Your task to perform on an android device: Search for "jbl charge 4" on target.com, select the first entry, and add it to the cart. Image 0: 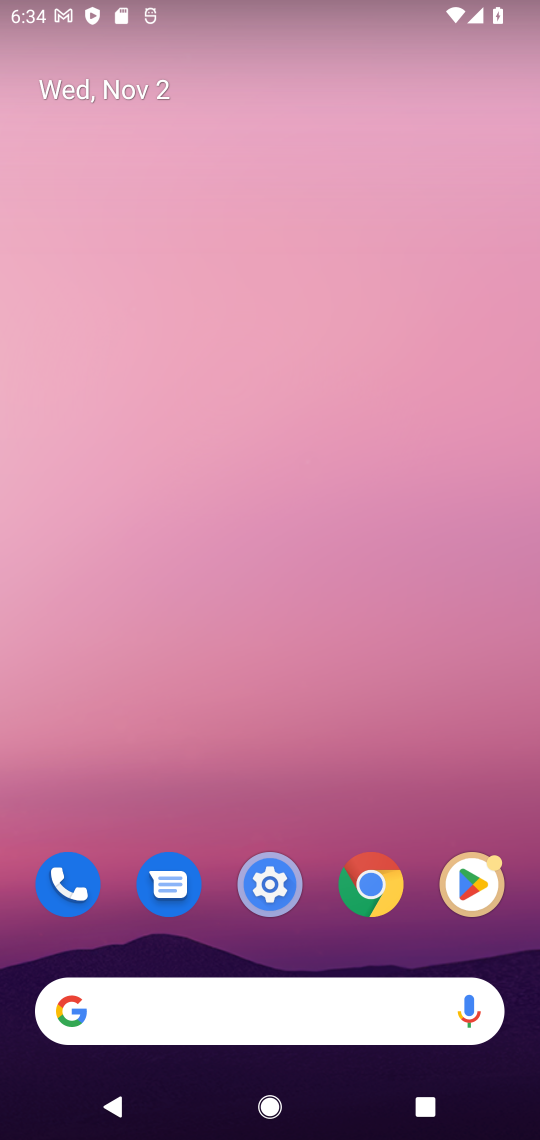
Step 0: click (171, 1007)
Your task to perform on an android device: Search for "jbl charge 4" on target.com, select the first entry, and add it to the cart. Image 1: 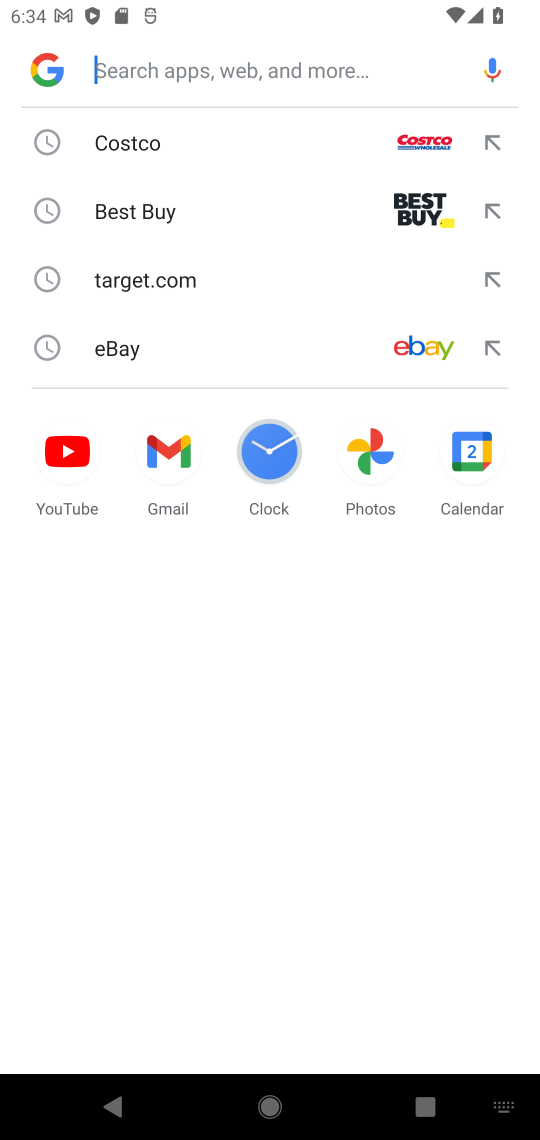
Step 1: click (170, 282)
Your task to perform on an android device: Search for "jbl charge 4" on target.com, select the first entry, and add it to the cart. Image 2: 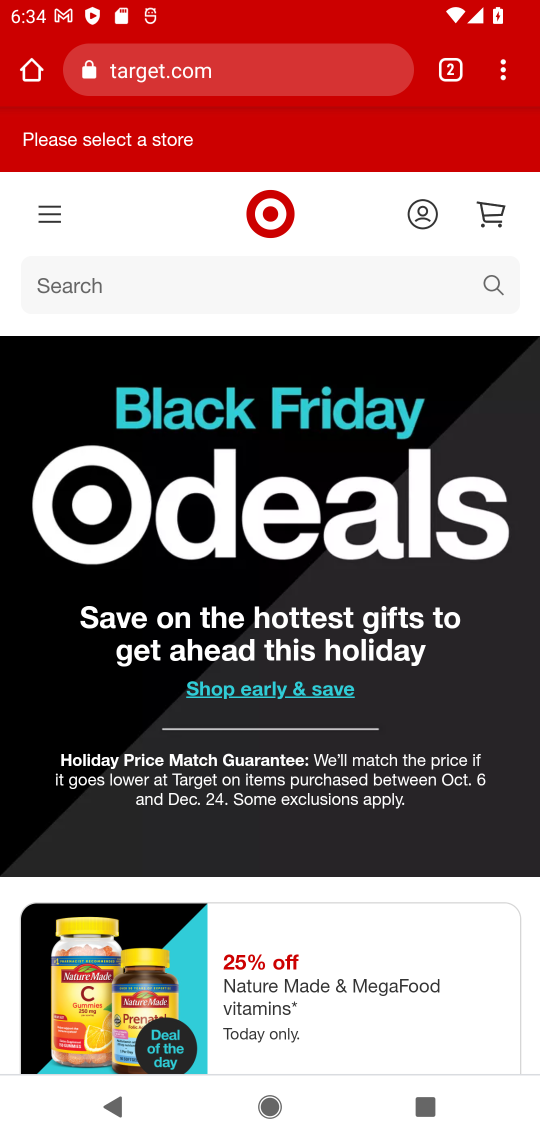
Step 2: click (400, 295)
Your task to perform on an android device: Search for "jbl charge 4" on target.com, select the first entry, and add it to the cart. Image 3: 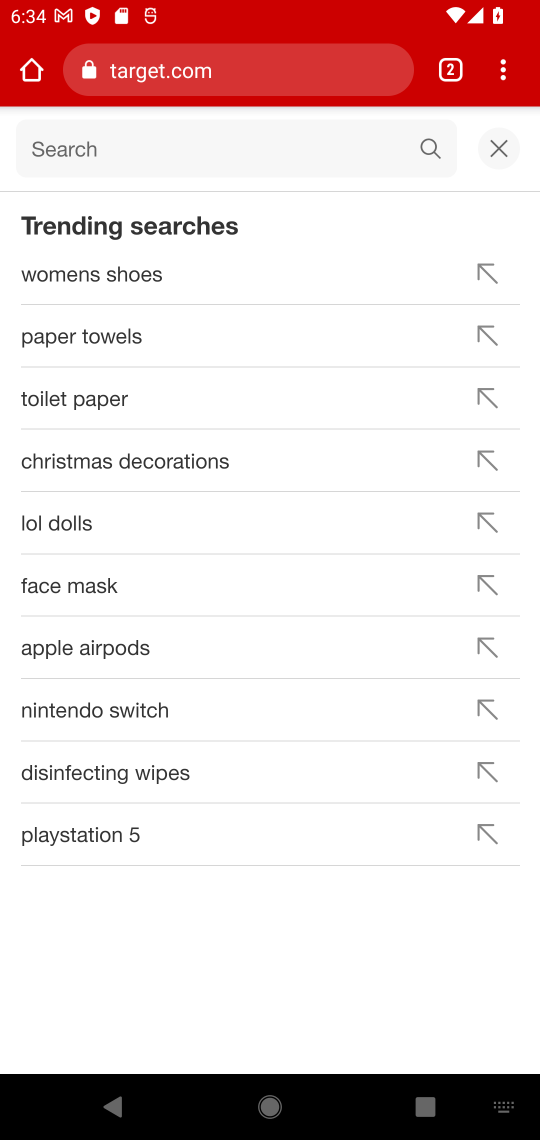
Step 3: type "jbl charge 4"
Your task to perform on an android device: Search for "jbl charge 4" on target.com, select the first entry, and add it to the cart. Image 4: 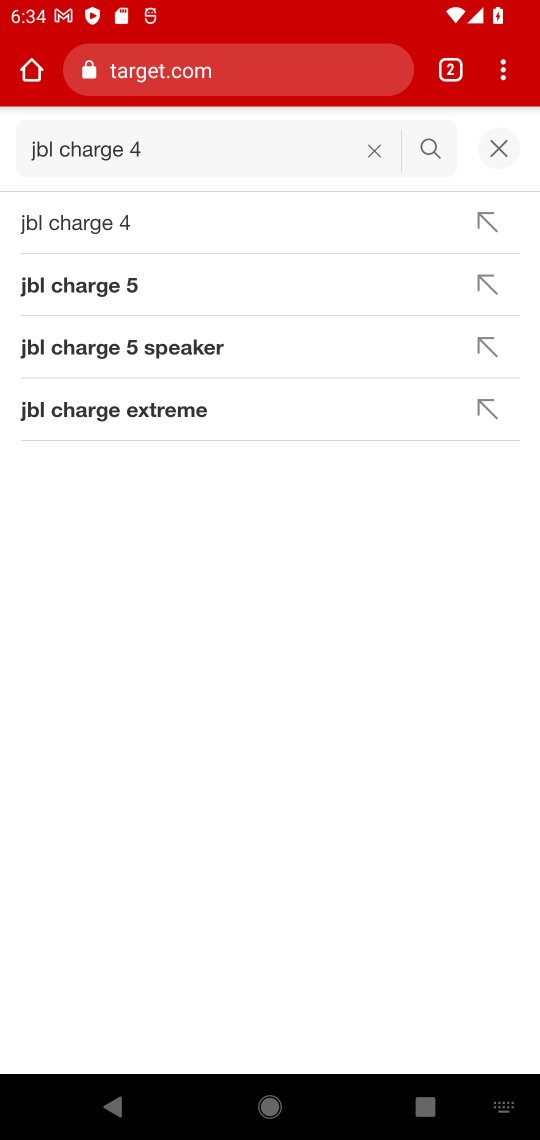
Step 4: click (434, 149)
Your task to perform on an android device: Search for "jbl charge 4" on target.com, select the first entry, and add it to the cart. Image 5: 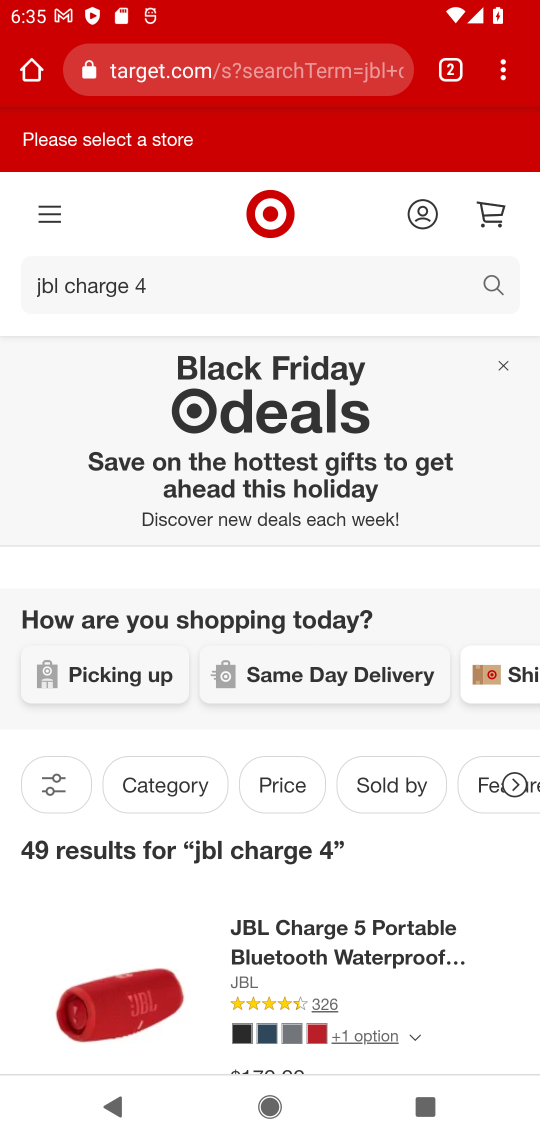
Step 5: click (309, 913)
Your task to perform on an android device: Search for "jbl charge 4" on target.com, select the first entry, and add it to the cart. Image 6: 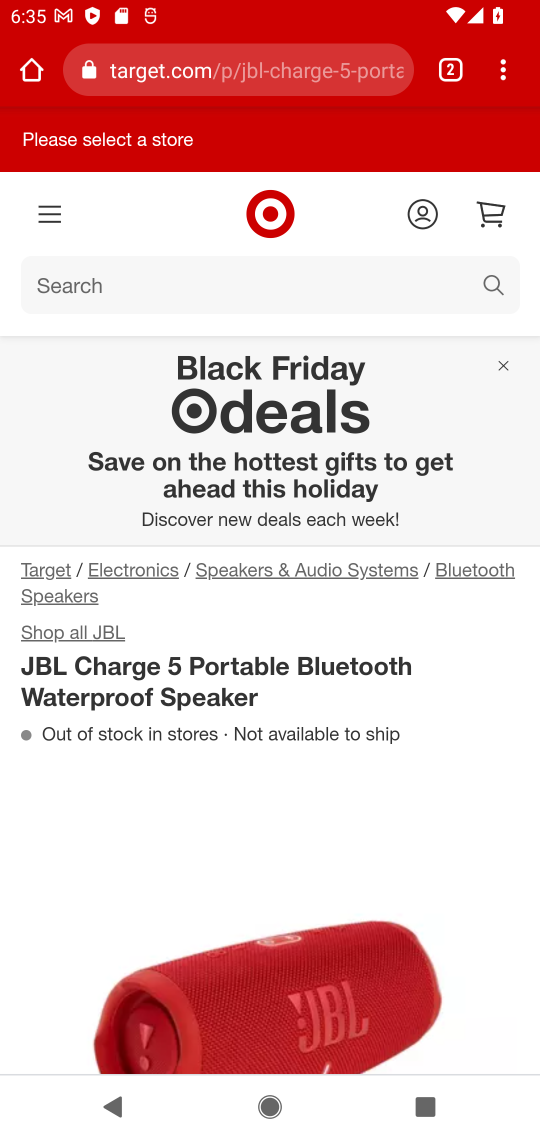
Step 6: drag from (338, 949) to (293, 403)
Your task to perform on an android device: Search for "jbl charge 4" on target.com, select the first entry, and add it to the cart. Image 7: 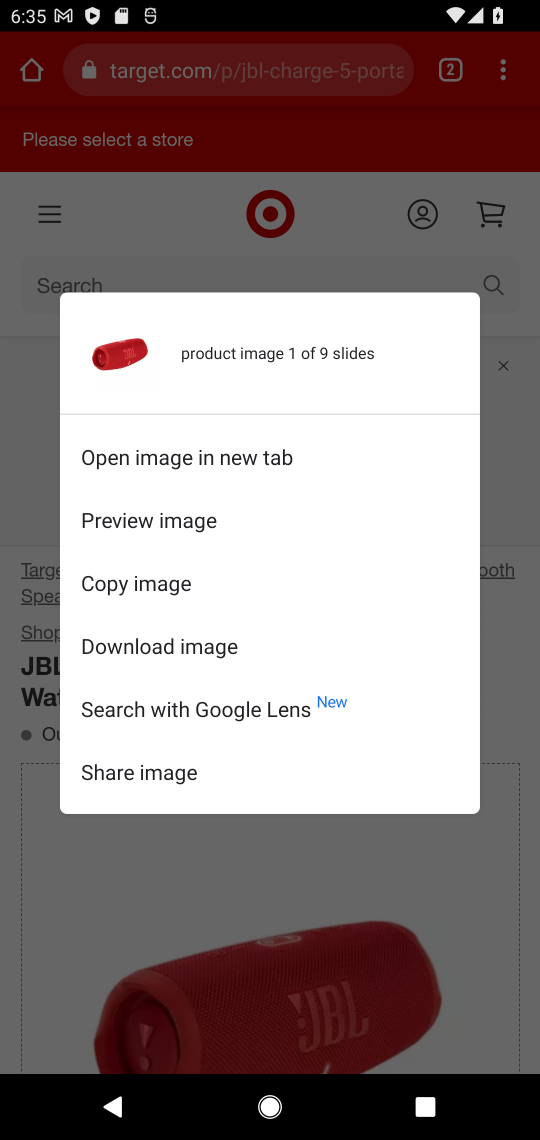
Step 7: click (343, 820)
Your task to perform on an android device: Search for "jbl charge 4" on target.com, select the first entry, and add it to the cart. Image 8: 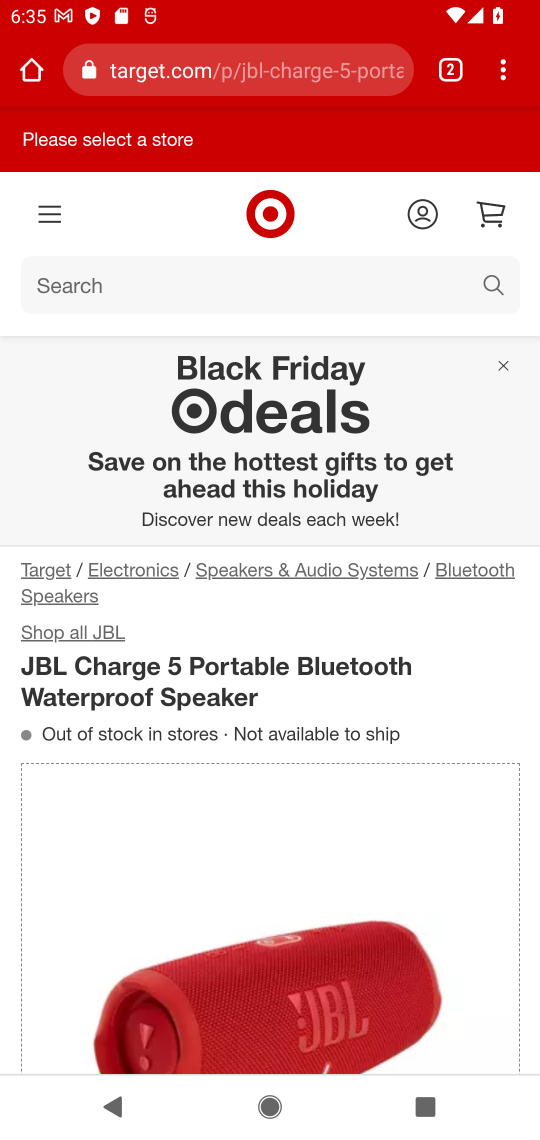
Step 8: drag from (324, 878) to (327, 293)
Your task to perform on an android device: Search for "jbl charge 4" on target.com, select the first entry, and add it to the cart. Image 9: 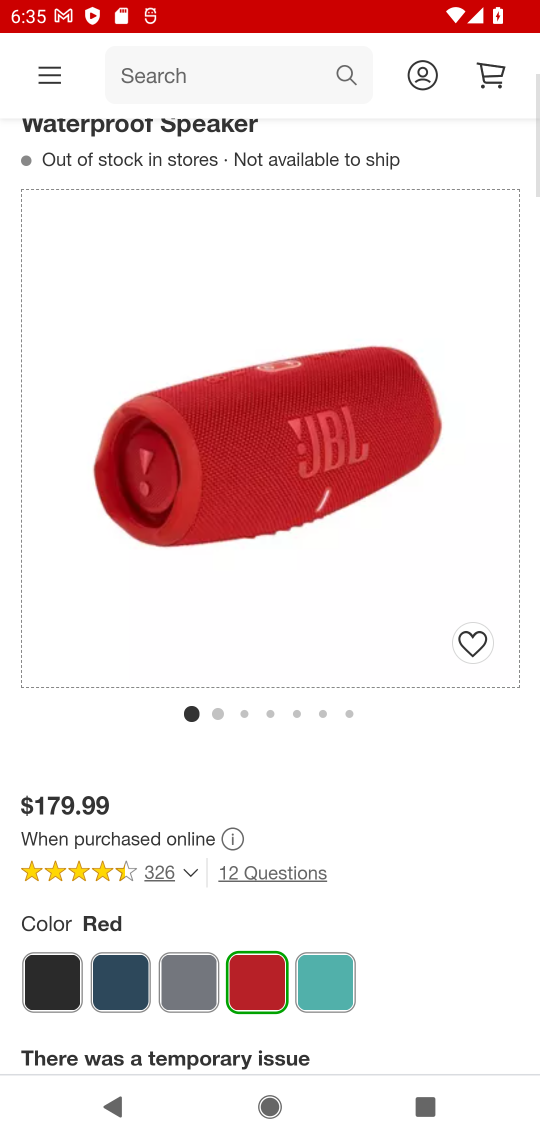
Step 9: drag from (313, 956) to (321, 635)
Your task to perform on an android device: Search for "jbl charge 4" on target.com, select the first entry, and add it to the cart. Image 10: 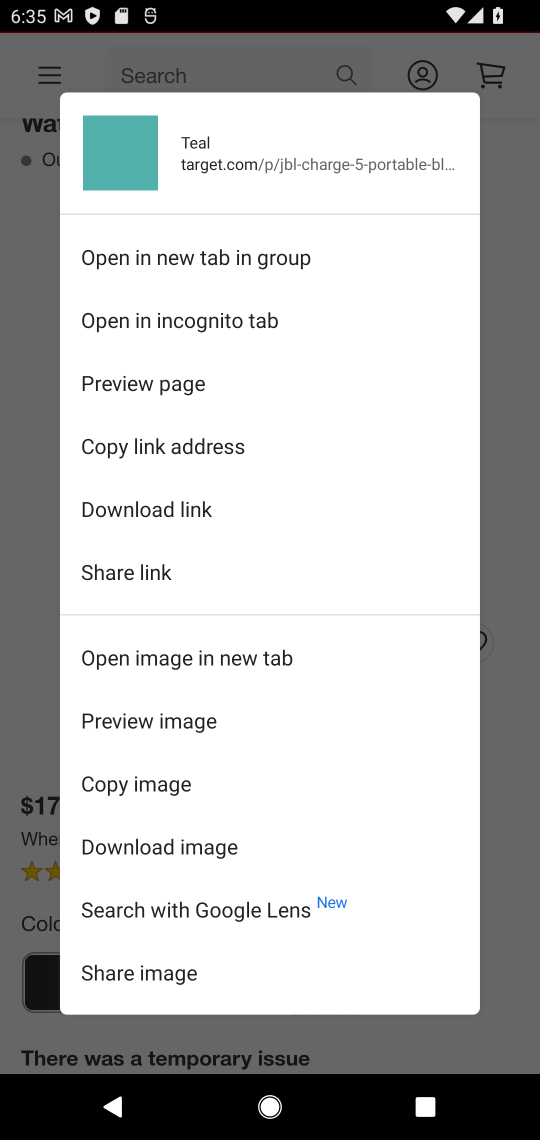
Step 10: click (42, 1018)
Your task to perform on an android device: Search for "jbl charge 4" on target.com, select the first entry, and add it to the cart. Image 11: 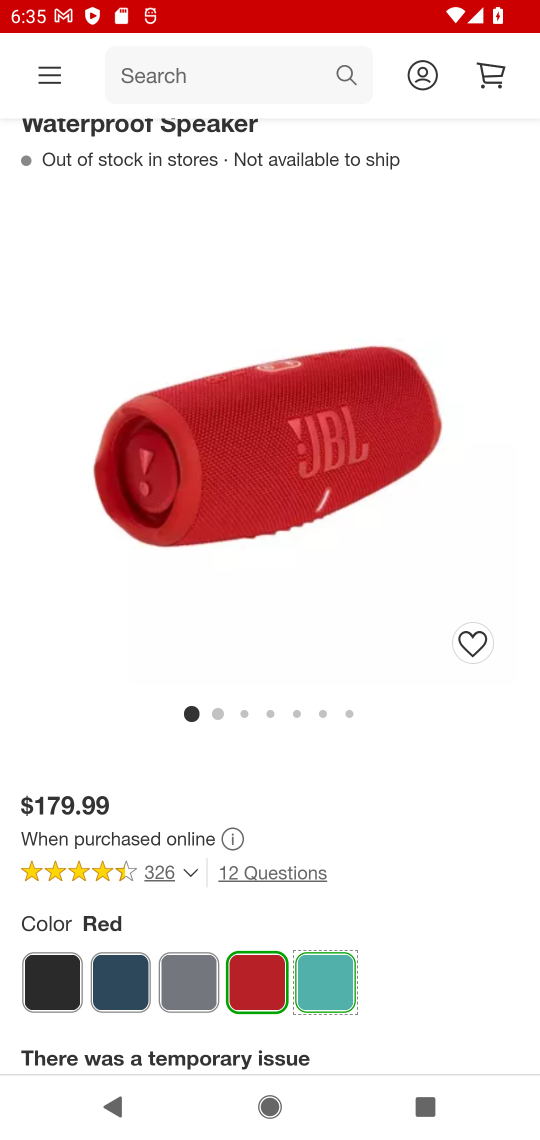
Step 11: task complete